Your task to perform on an android device: Show me the alarms in the clock app Image 0: 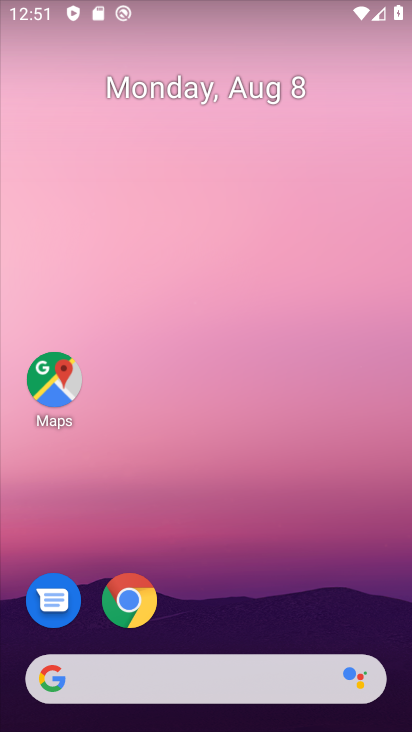
Step 0: press home button
Your task to perform on an android device: Show me the alarms in the clock app Image 1: 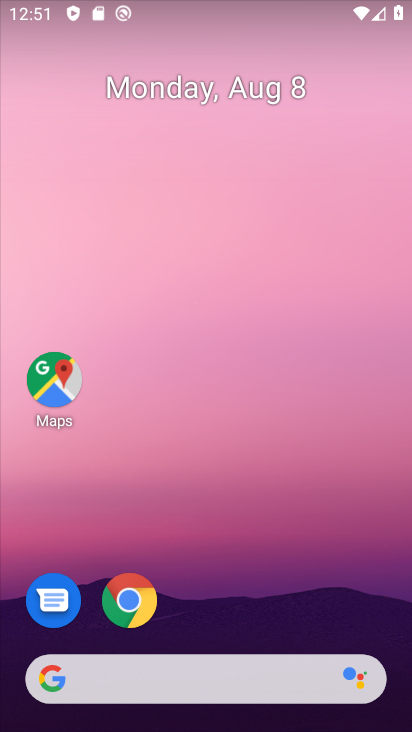
Step 1: drag from (232, 587) to (325, 20)
Your task to perform on an android device: Show me the alarms in the clock app Image 2: 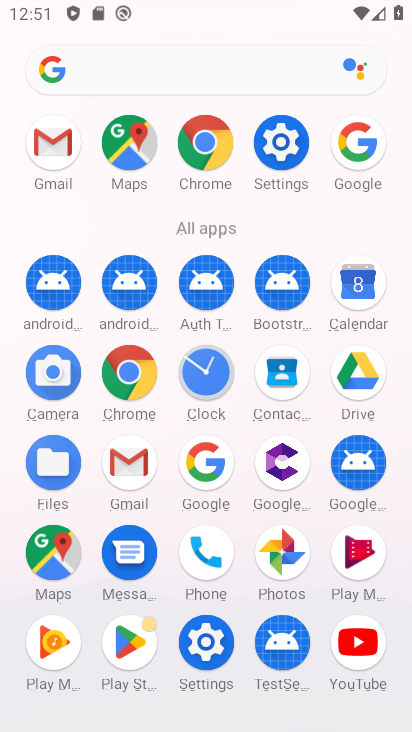
Step 2: click (217, 388)
Your task to perform on an android device: Show me the alarms in the clock app Image 3: 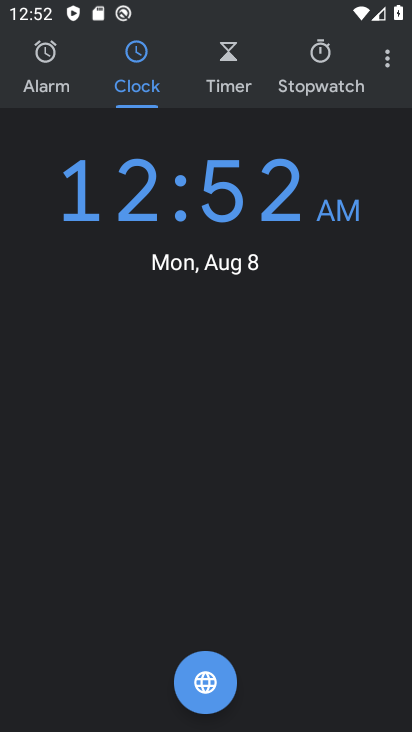
Step 3: click (44, 65)
Your task to perform on an android device: Show me the alarms in the clock app Image 4: 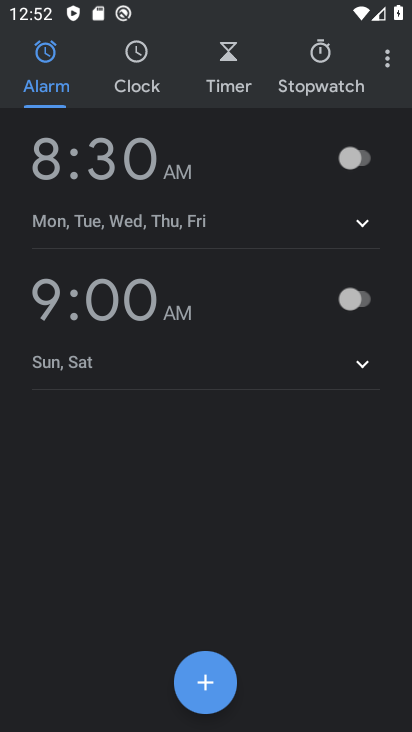
Step 4: task complete